Your task to perform on an android device: Open settings Image 0: 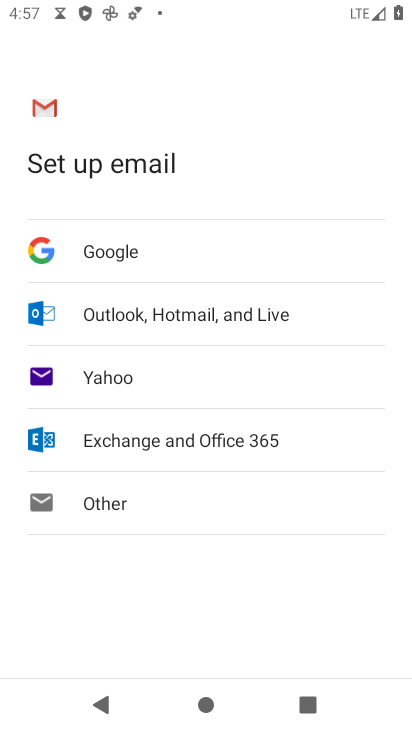
Step 0: press back button
Your task to perform on an android device: Open settings Image 1: 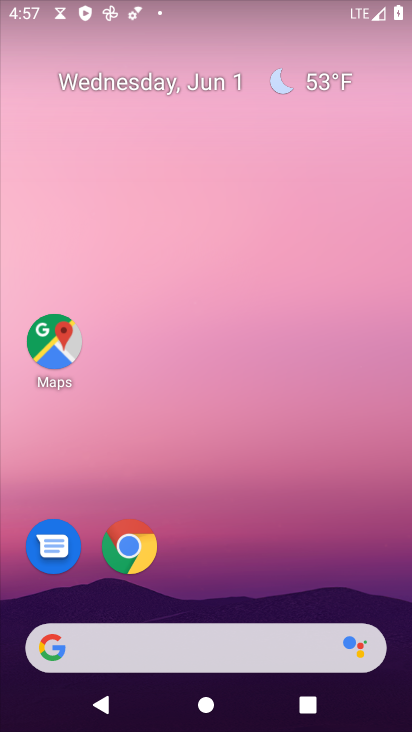
Step 1: drag from (288, 450) to (250, 0)
Your task to perform on an android device: Open settings Image 2: 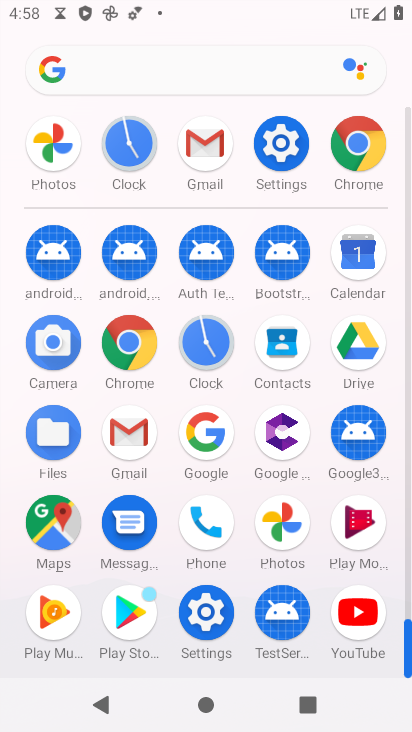
Step 2: drag from (0, 584) to (0, 235)
Your task to perform on an android device: Open settings Image 3: 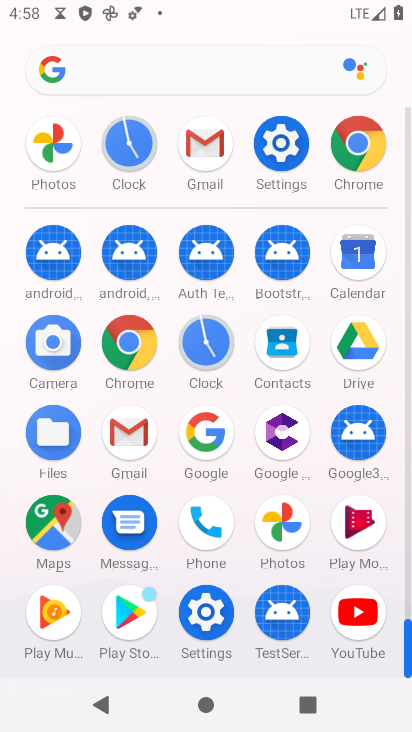
Step 3: click (210, 607)
Your task to perform on an android device: Open settings Image 4: 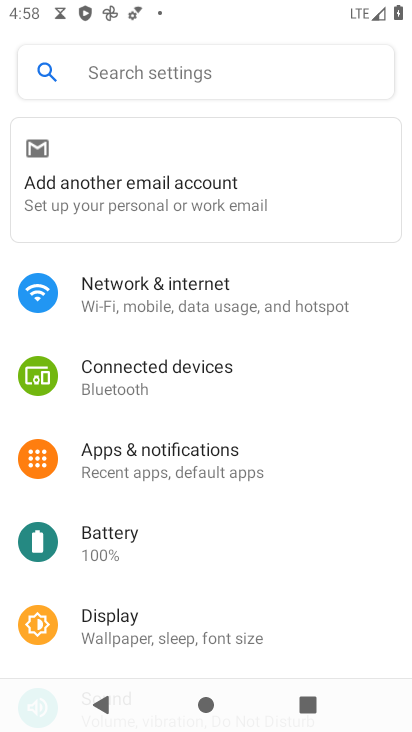
Step 4: task complete